Your task to perform on an android device: Add "energizer triple a" to the cart on bestbuy.com, then select checkout. Image 0: 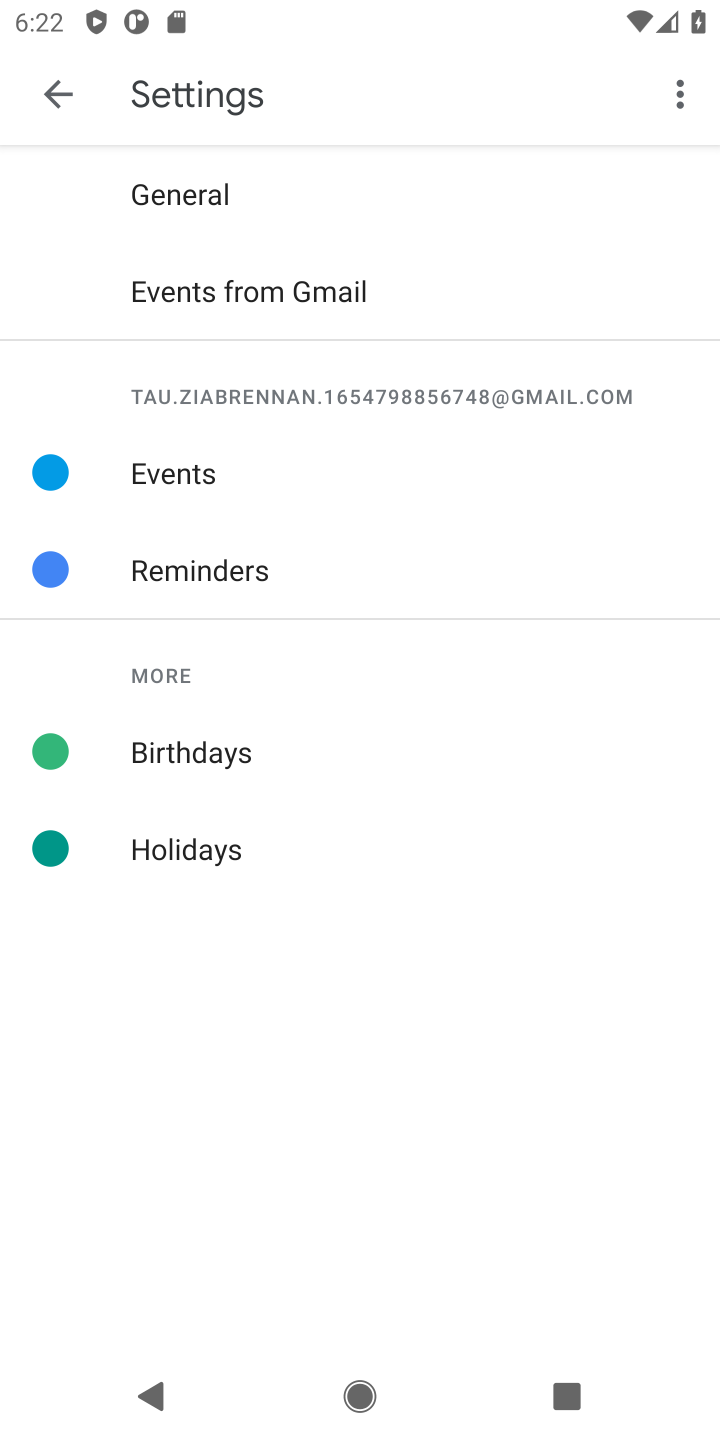
Step 0: press home button
Your task to perform on an android device: Add "energizer triple a" to the cart on bestbuy.com, then select checkout. Image 1: 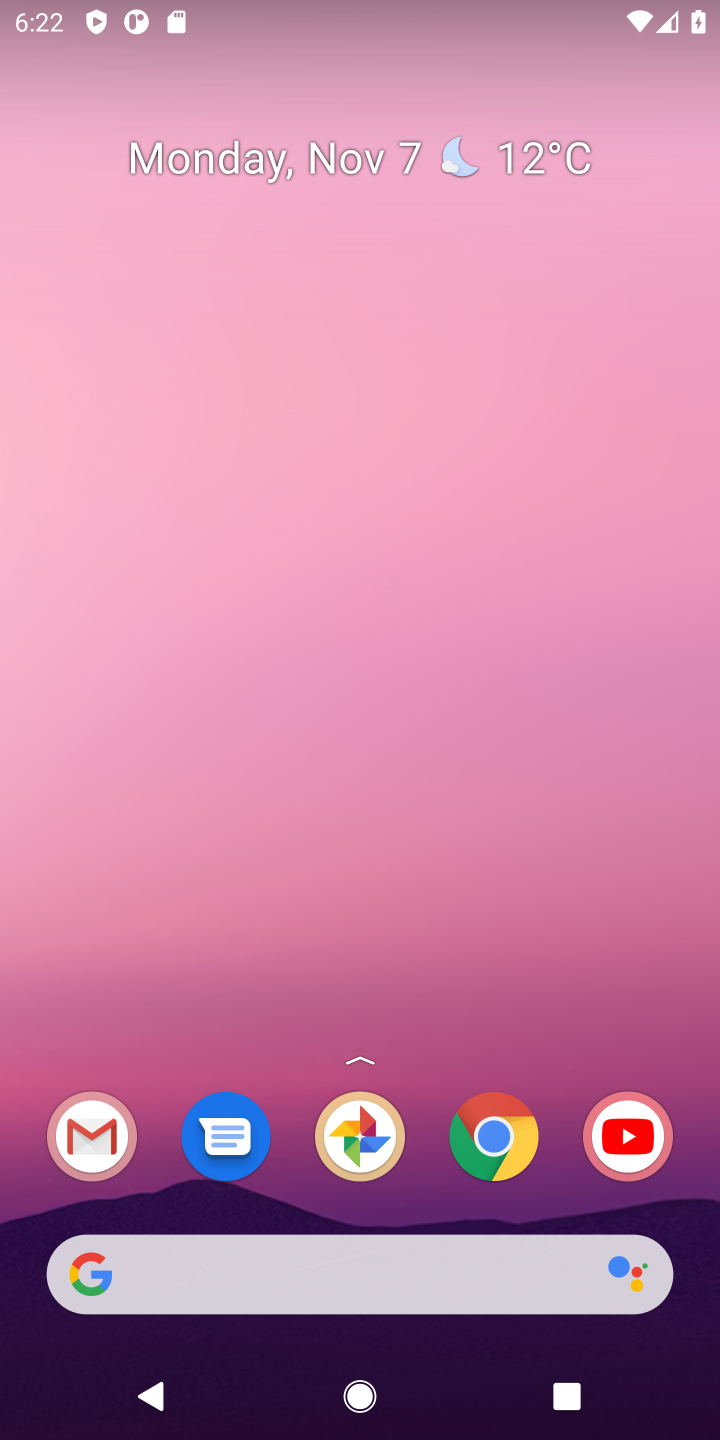
Step 1: click (84, 1267)
Your task to perform on an android device: Add "energizer triple a" to the cart on bestbuy.com, then select checkout. Image 2: 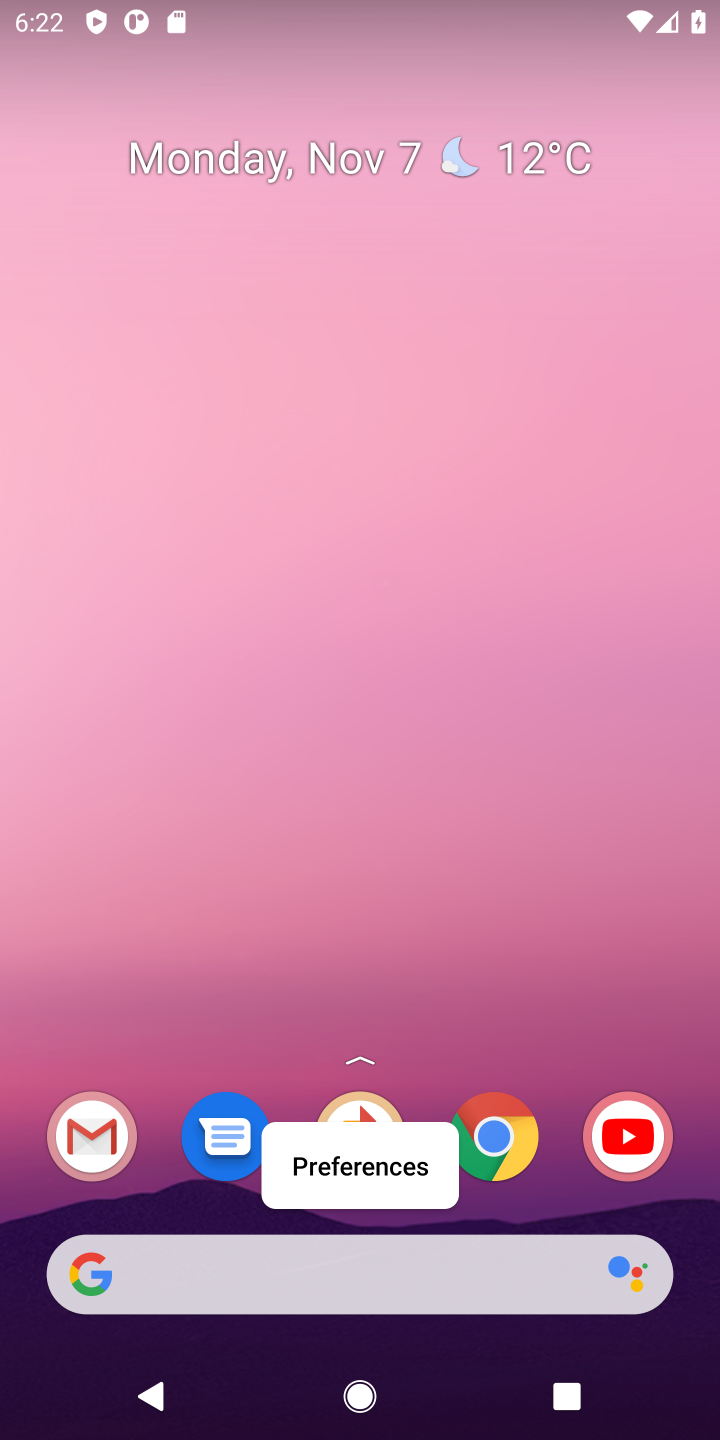
Step 2: click (75, 1271)
Your task to perform on an android device: Add "energizer triple a" to the cart on bestbuy.com, then select checkout. Image 3: 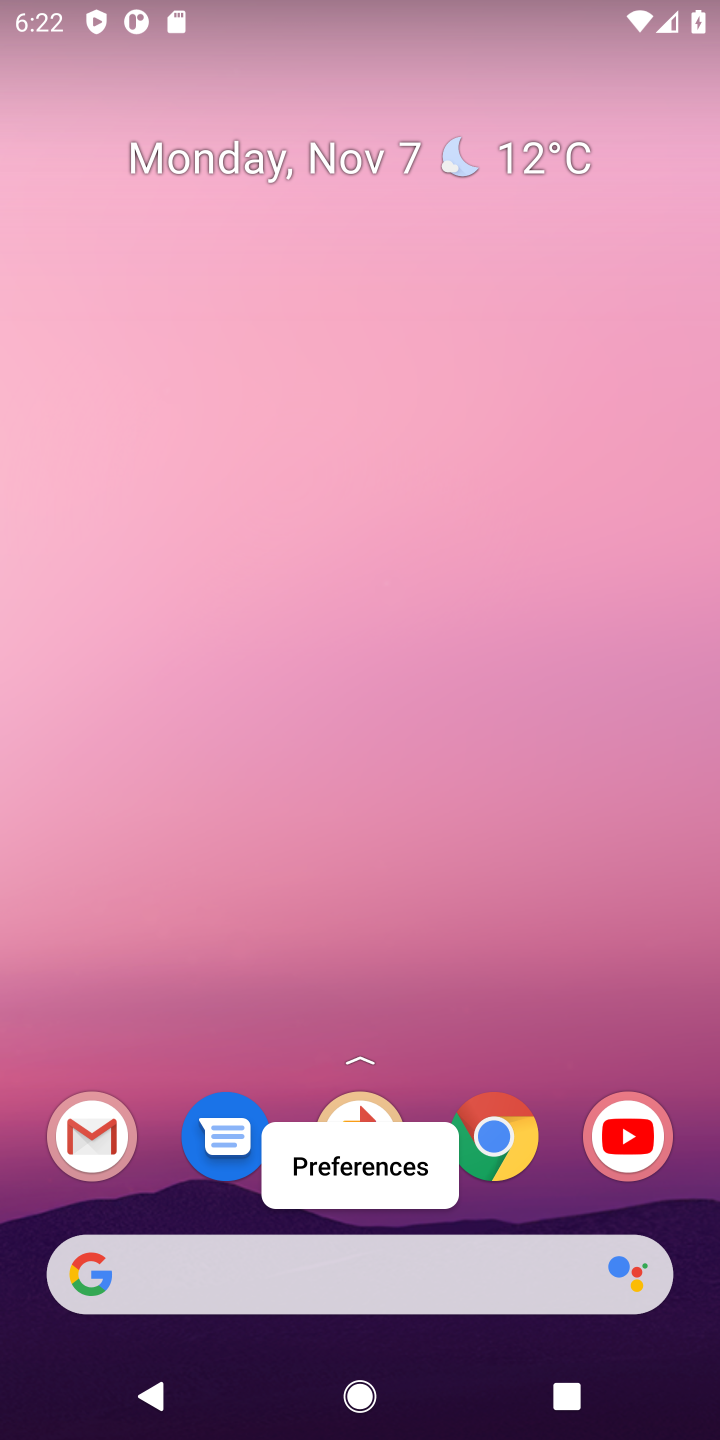
Step 3: click (81, 1272)
Your task to perform on an android device: Add "energizer triple a" to the cart on bestbuy.com, then select checkout. Image 4: 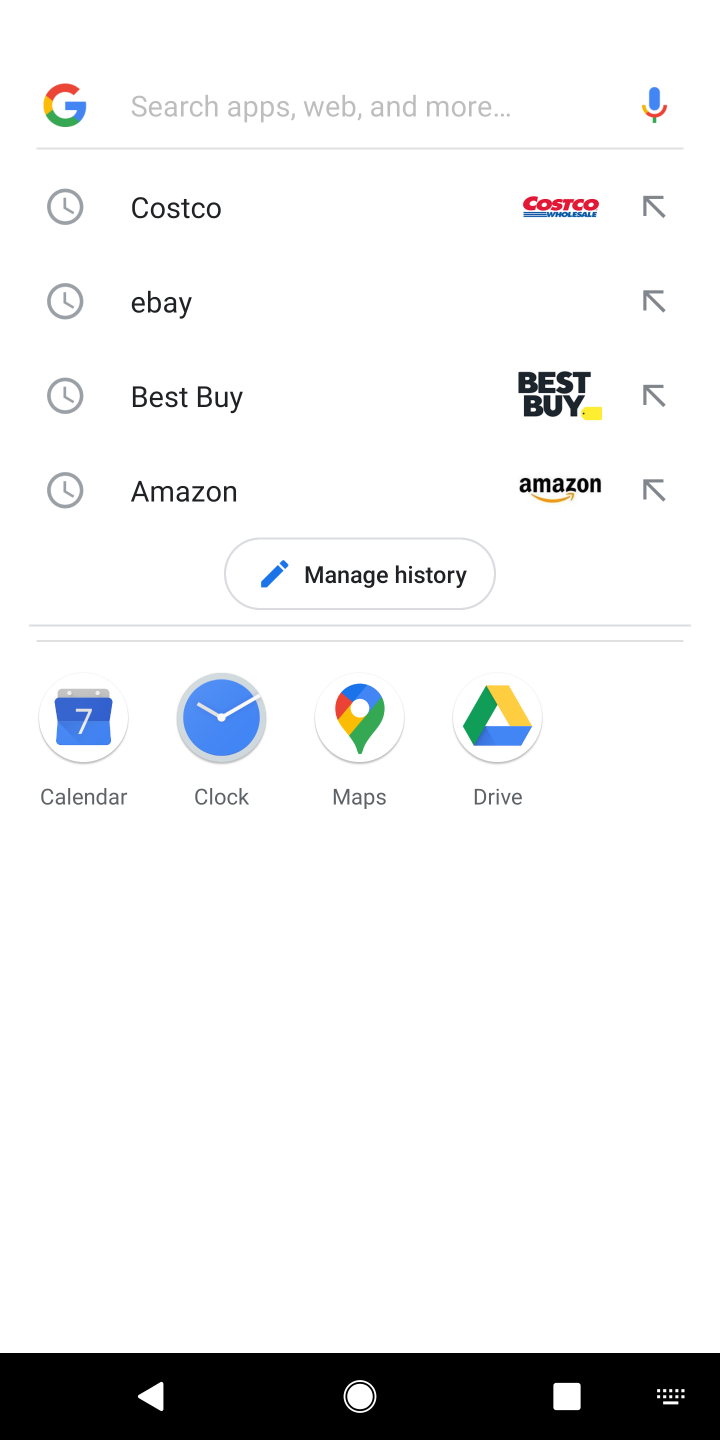
Step 4: click (190, 391)
Your task to perform on an android device: Add "energizer triple a" to the cart on bestbuy.com, then select checkout. Image 5: 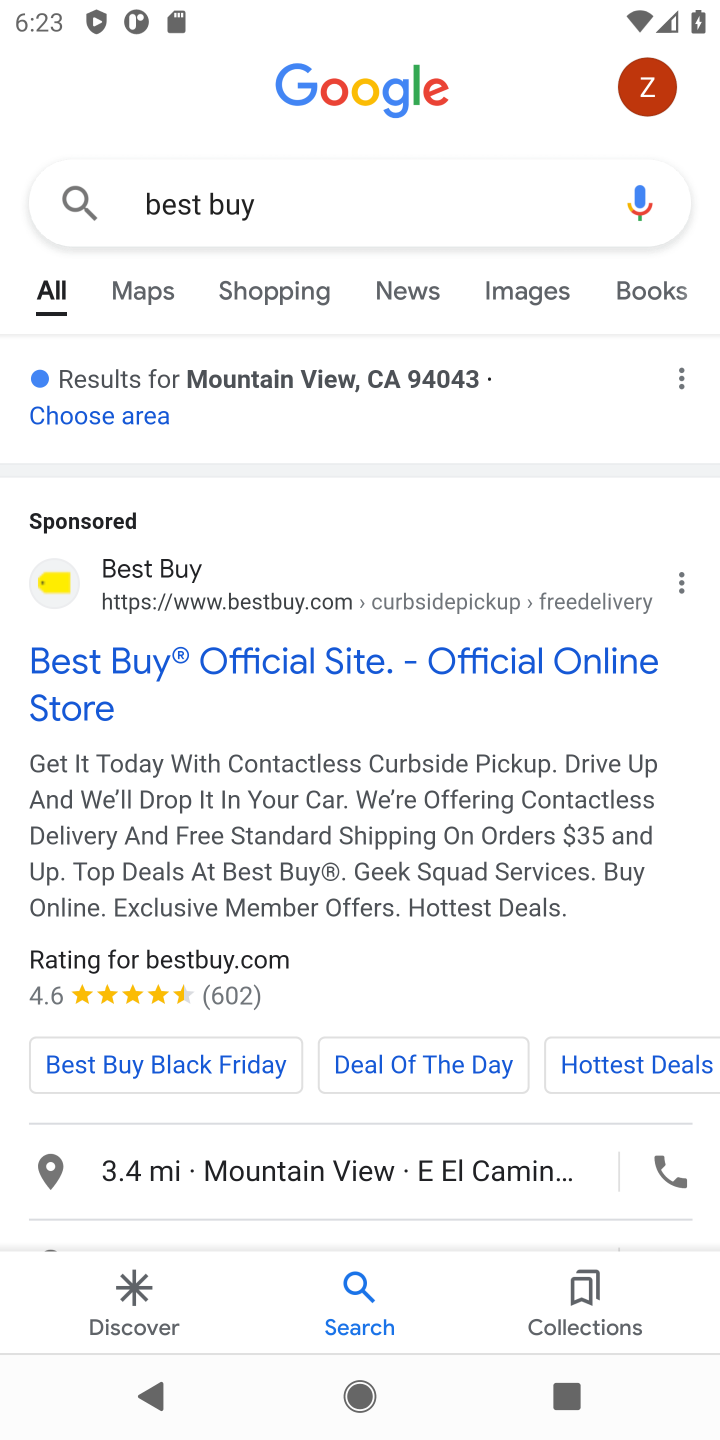
Step 5: click (114, 565)
Your task to perform on an android device: Add "energizer triple a" to the cart on bestbuy.com, then select checkout. Image 6: 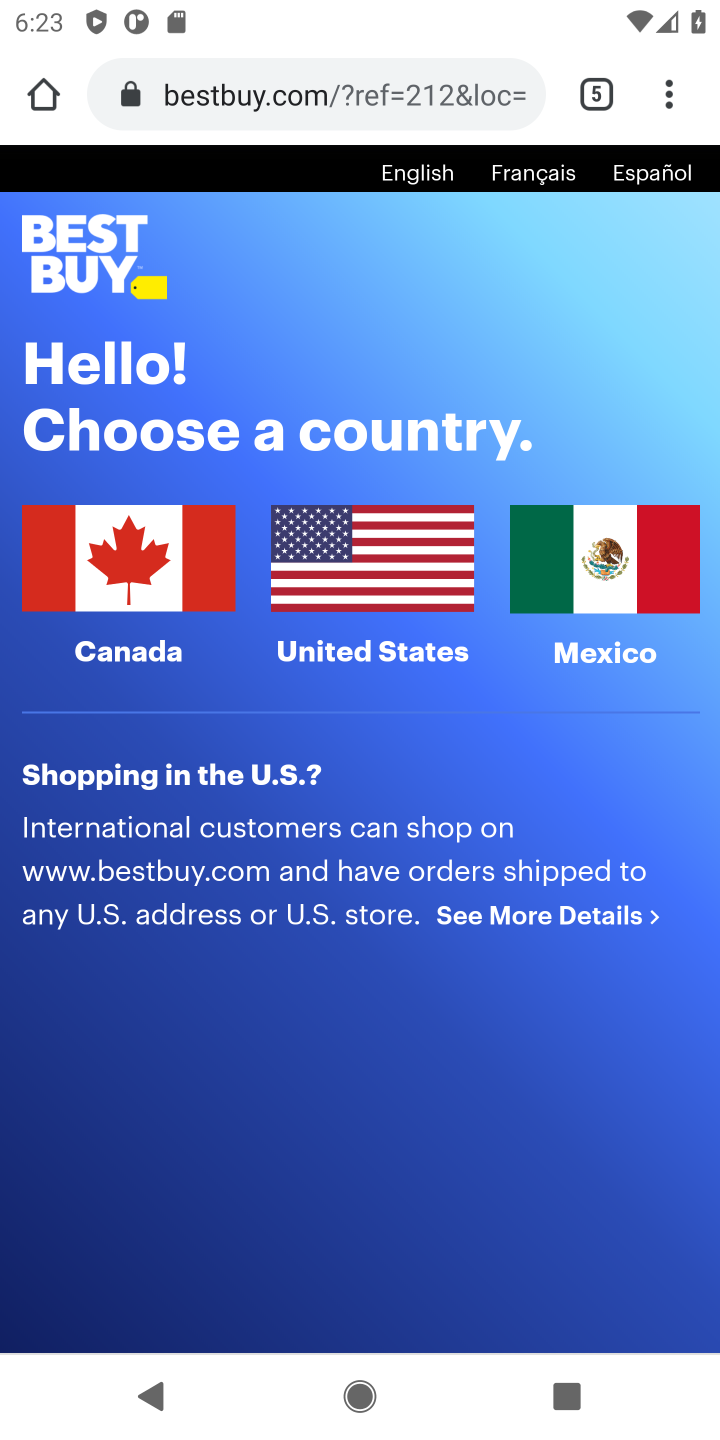
Step 6: click (343, 541)
Your task to perform on an android device: Add "energizer triple a" to the cart on bestbuy.com, then select checkout. Image 7: 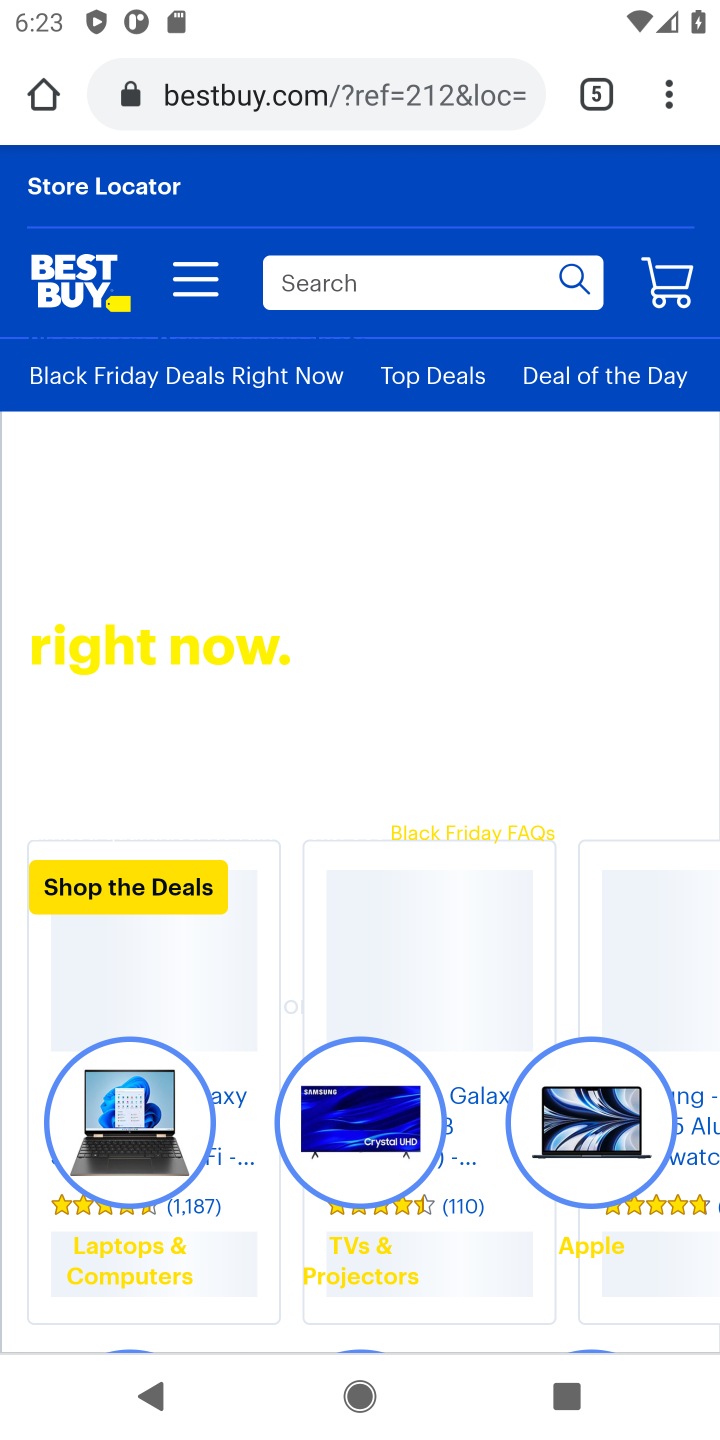
Step 7: click (367, 276)
Your task to perform on an android device: Add "energizer triple a" to the cart on bestbuy.com, then select checkout. Image 8: 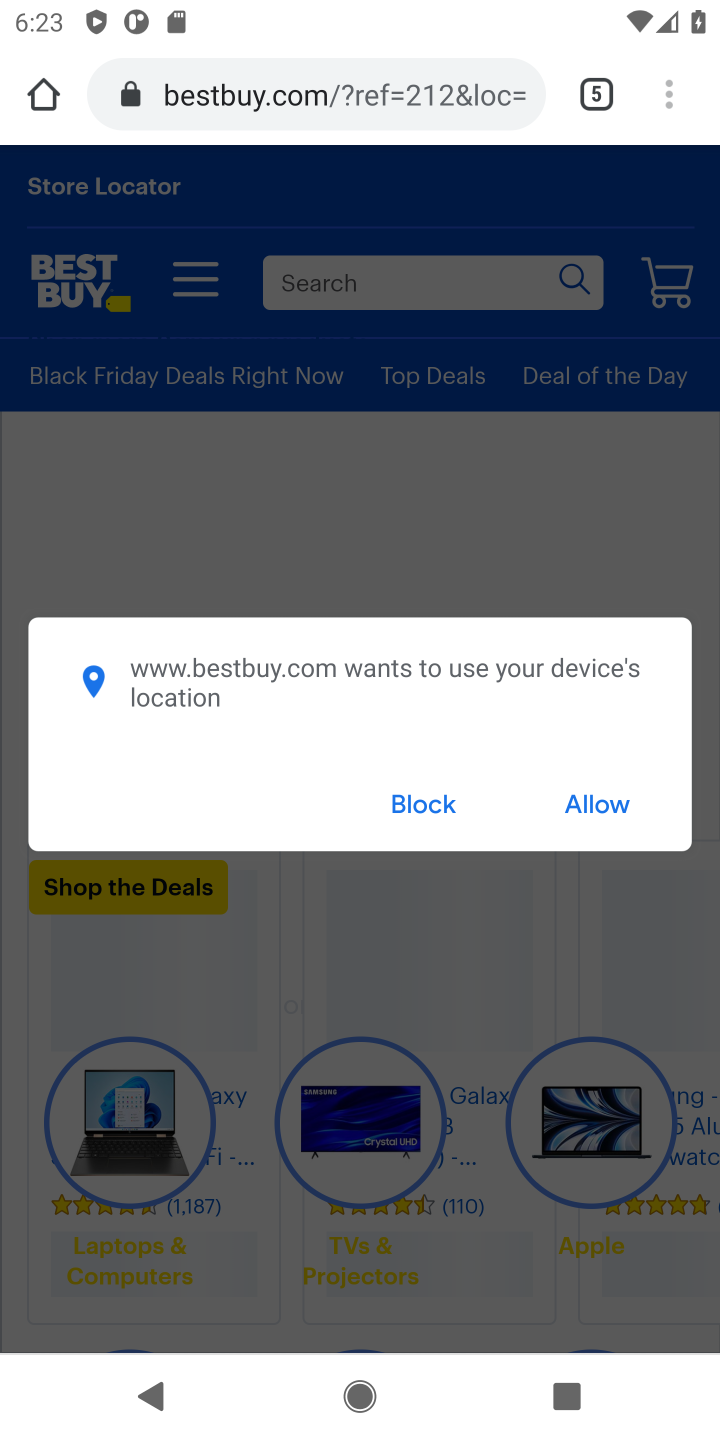
Step 8: click (586, 810)
Your task to perform on an android device: Add "energizer triple a" to the cart on bestbuy.com, then select checkout. Image 9: 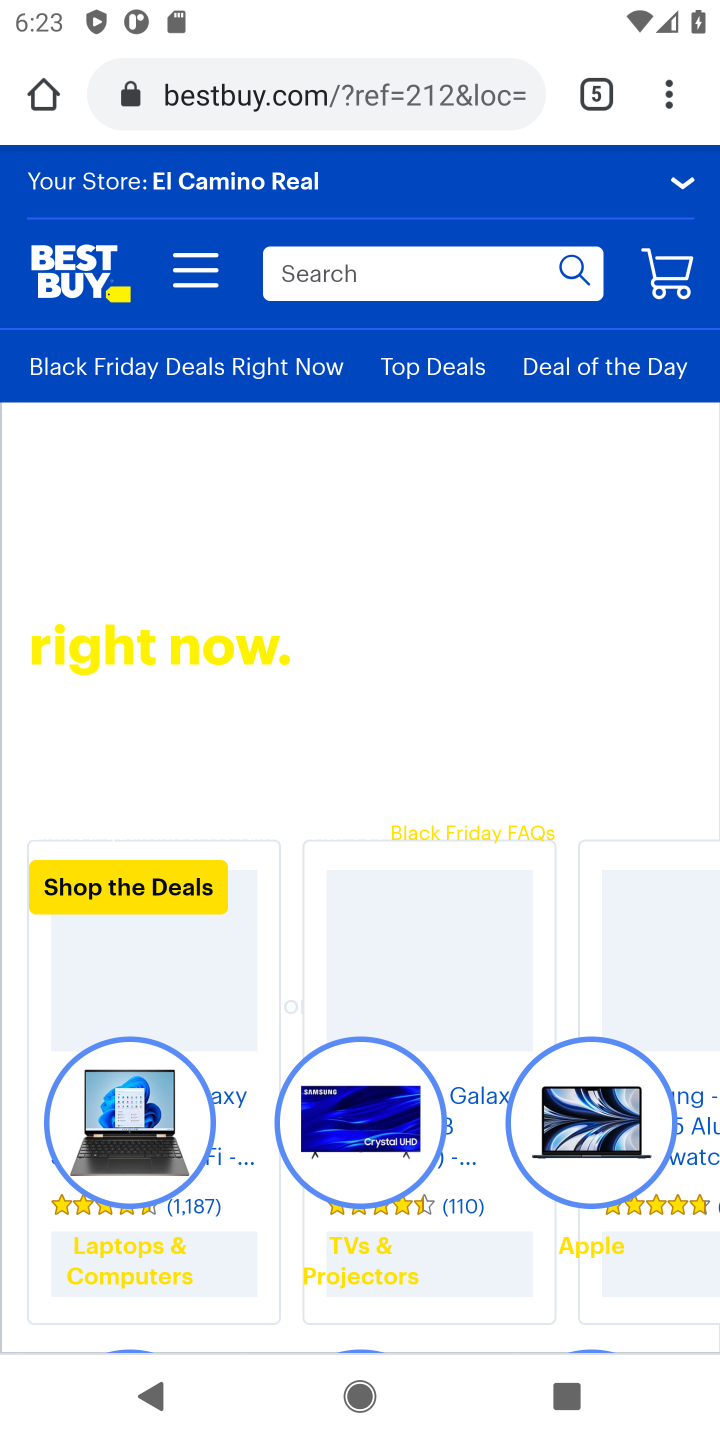
Step 9: click (300, 258)
Your task to perform on an android device: Add "energizer triple a" to the cart on bestbuy.com, then select checkout. Image 10: 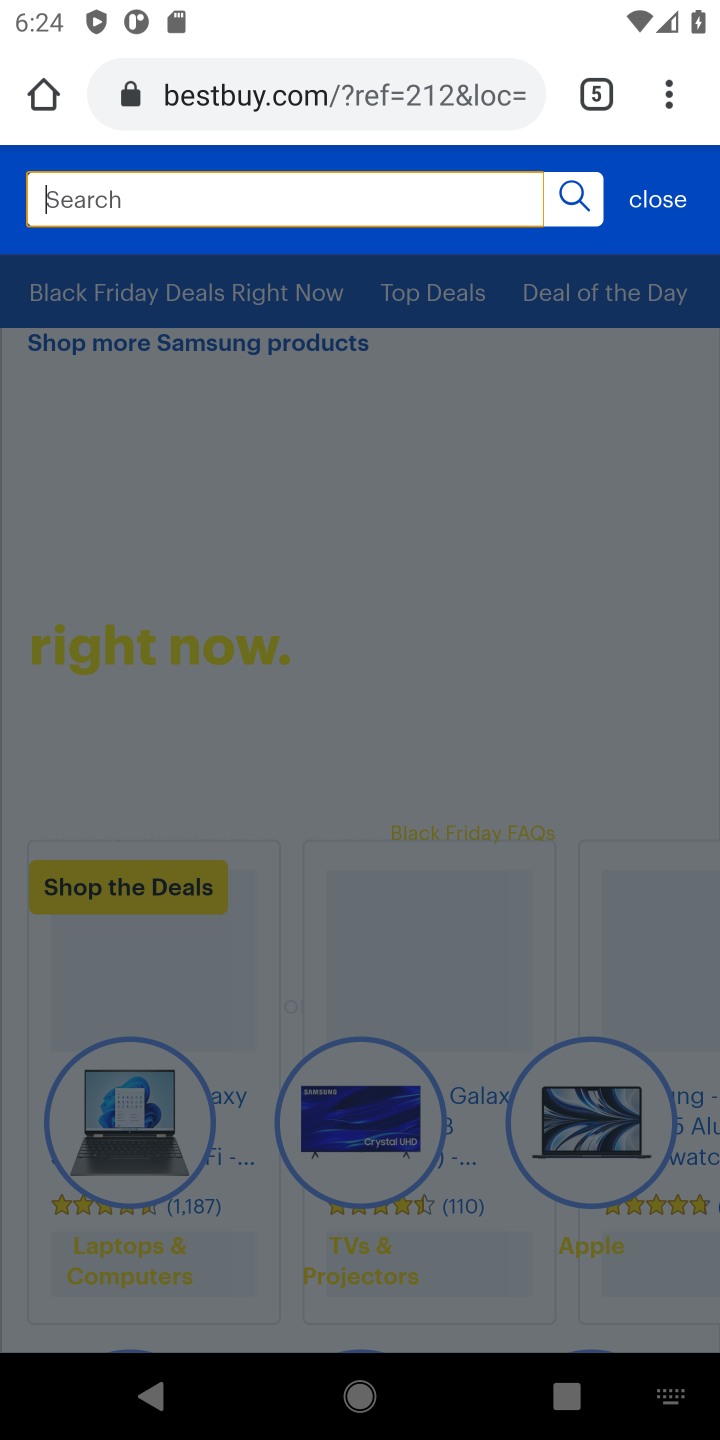
Step 10: type "energiz triple a"
Your task to perform on an android device: Add "energizer triple a" to the cart on bestbuy.com, then select checkout. Image 11: 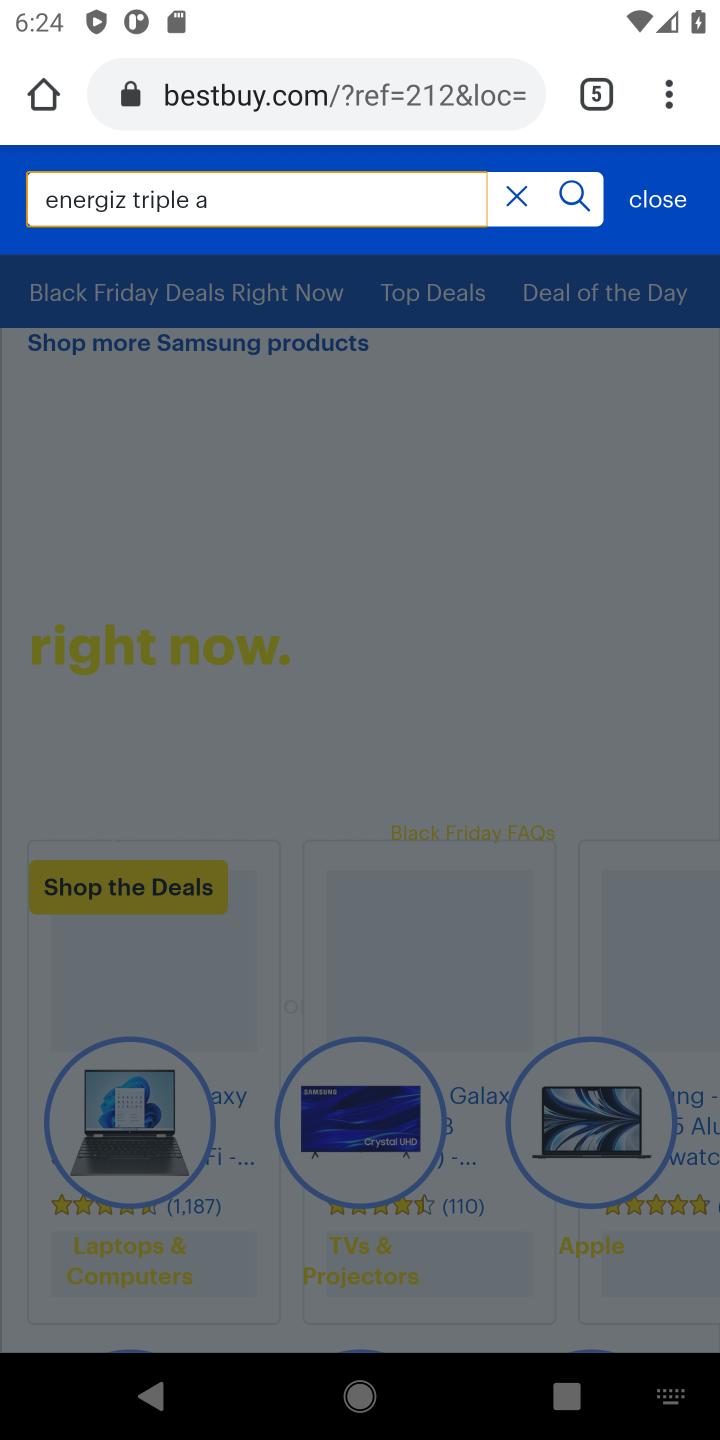
Step 11: click (579, 191)
Your task to perform on an android device: Add "energizer triple a" to the cart on bestbuy.com, then select checkout. Image 12: 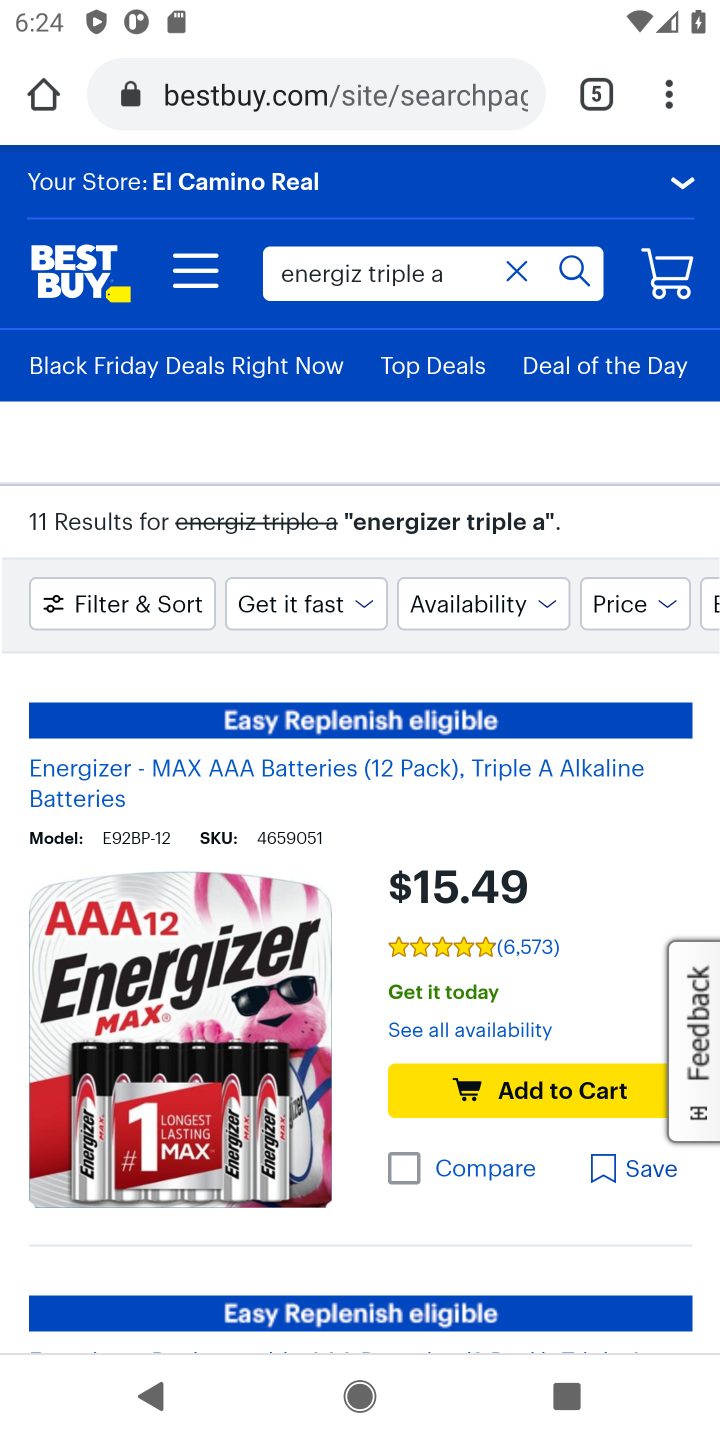
Step 12: click (471, 1082)
Your task to perform on an android device: Add "energizer triple a" to the cart on bestbuy.com, then select checkout. Image 13: 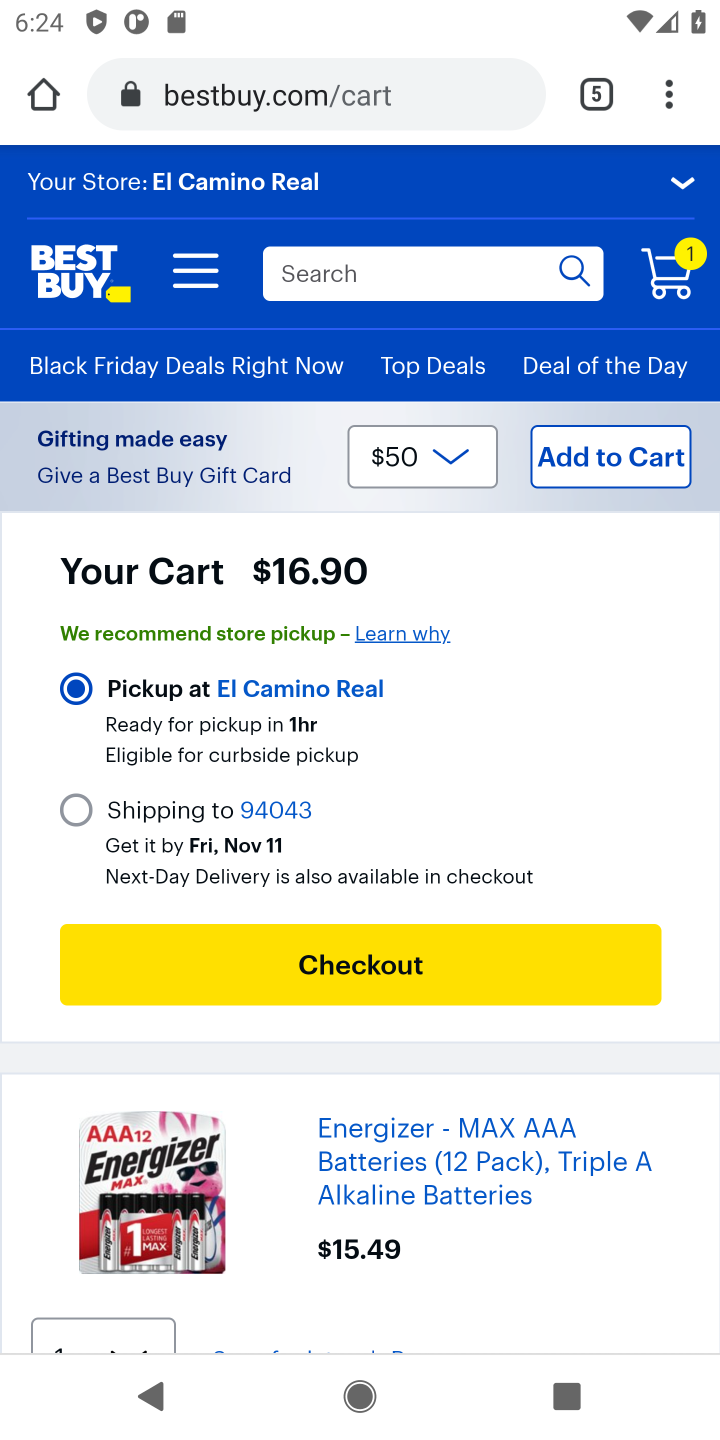
Step 13: click (357, 957)
Your task to perform on an android device: Add "energizer triple a" to the cart on bestbuy.com, then select checkout. Image 14: 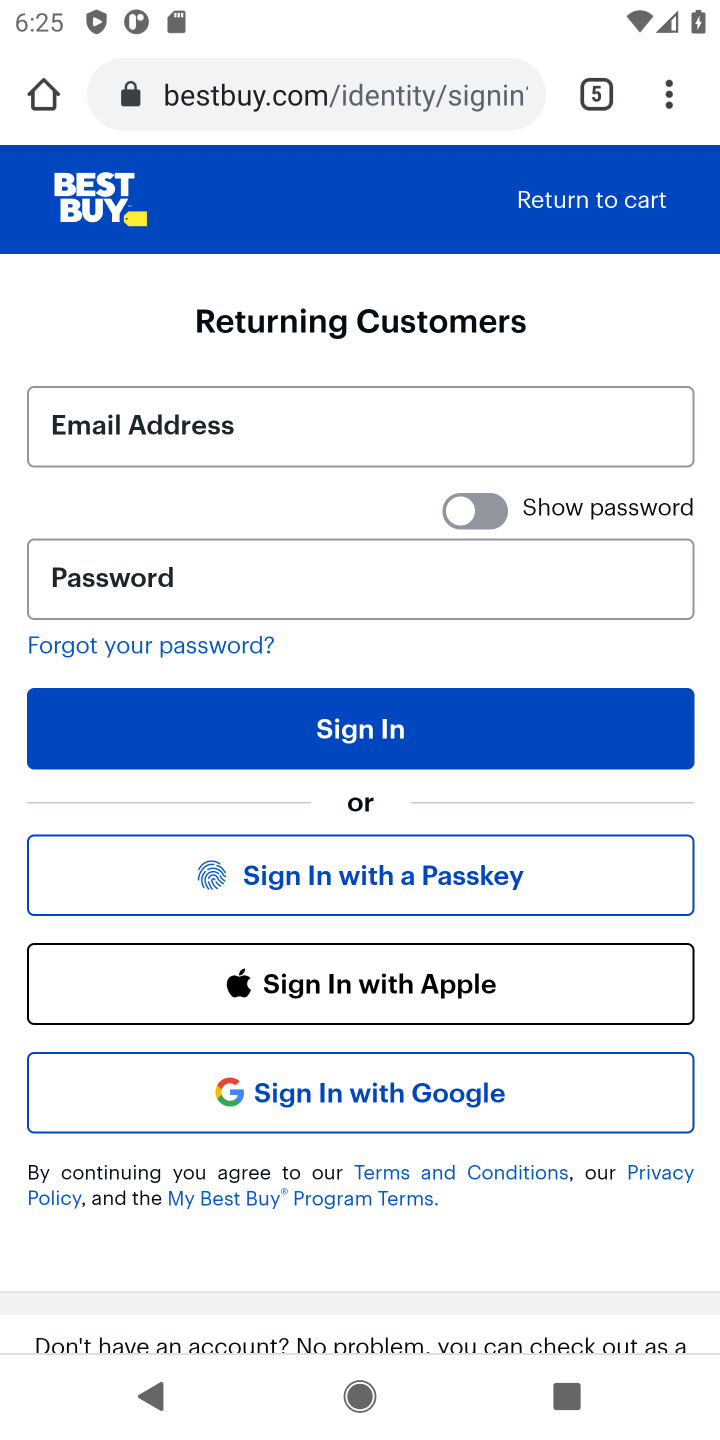
Step 14: task complete